Your task to perform on an android device: When is my next appointment? Image 0: 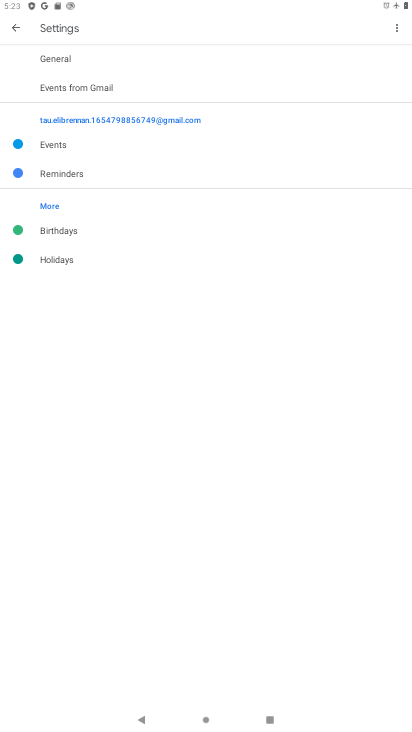
Step 0: press home button
Your task to perform on an android device: When is my next appointment? Image 1: 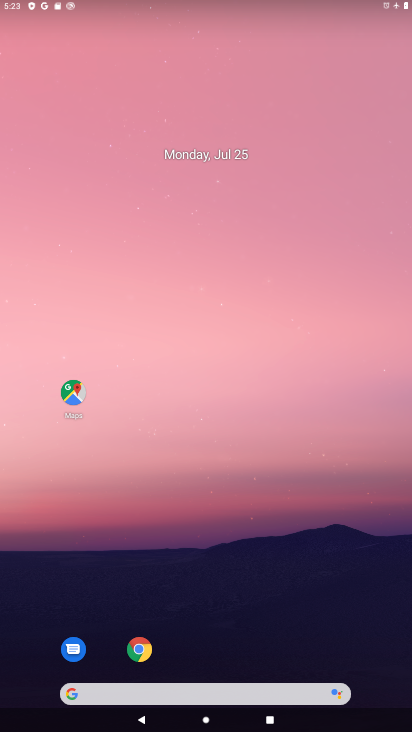
Step 1: drag from (276, 686) to (406, 363)
Your task to perform on an android device: When is my next appointment? Image 2: 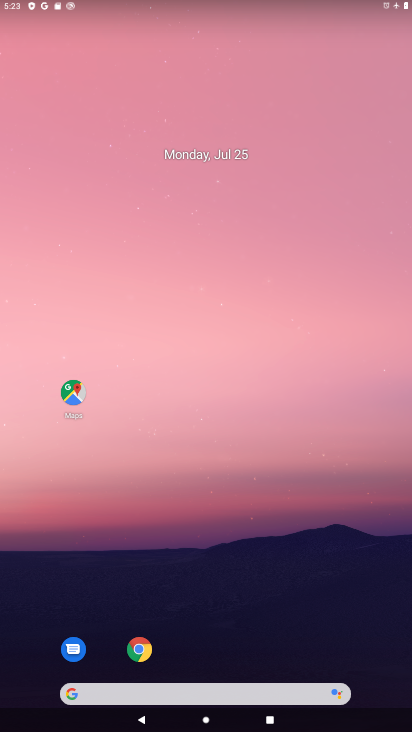
Step 2: drag from (273, 664) to (295, 34)
Your task to perform on an android device: When is my next appointment? Image 3: 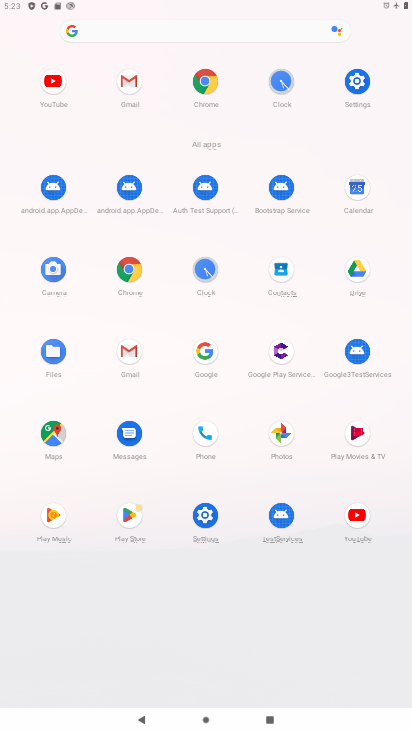
Step 3: click (356, 185)
Your task to perform on an android device: When is my next appointment? Image 4: 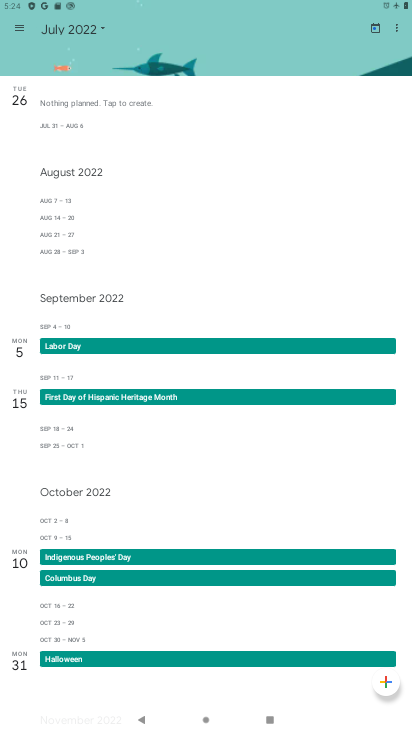
Step 4: click (103, 30)
Your task to perform on an android device: When is my next appointment? Image 5: 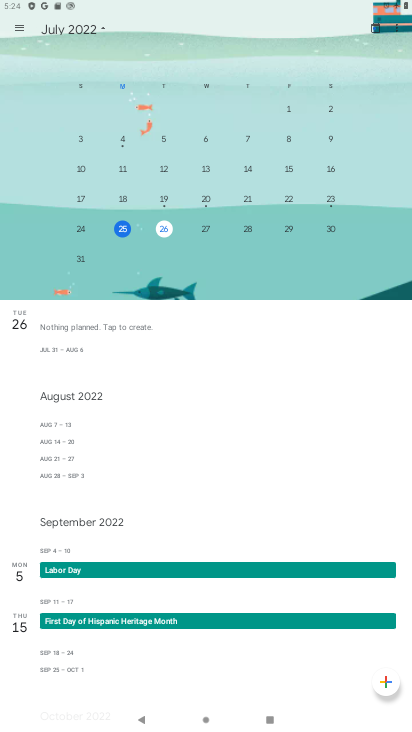
Step 5: click (159, 223)
Your task to perform on an android device: When is my next appointment? Image 6: 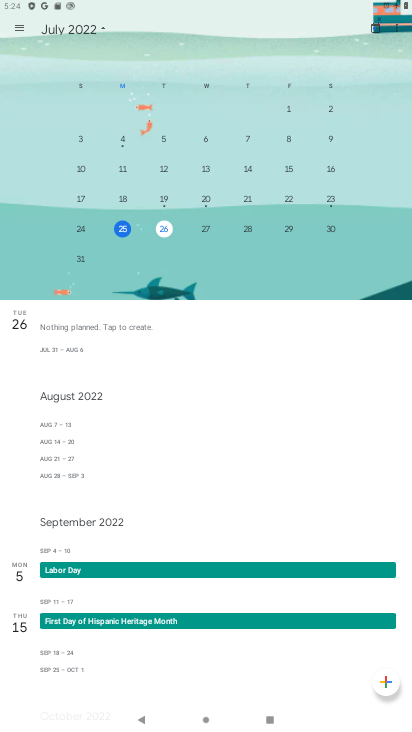
Step 6: task complete